Your task to perform on an android device: Is it going to rain tomorrow? Image 0: 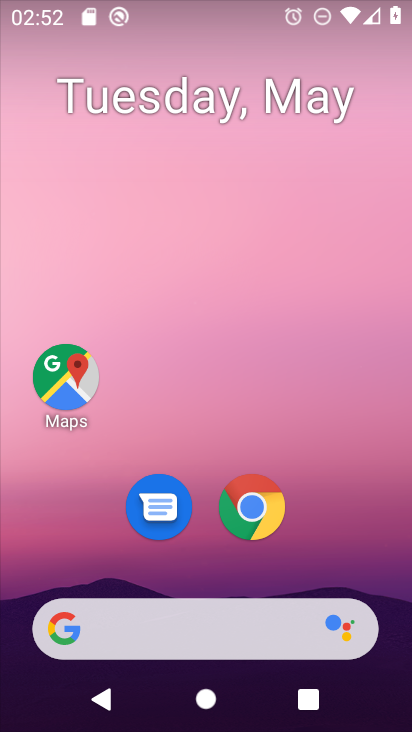
Step 0: drag from (216, 563) to (212, 193)
Your task to perform on an android device: Is it going to rain tomorrow? Image 1: 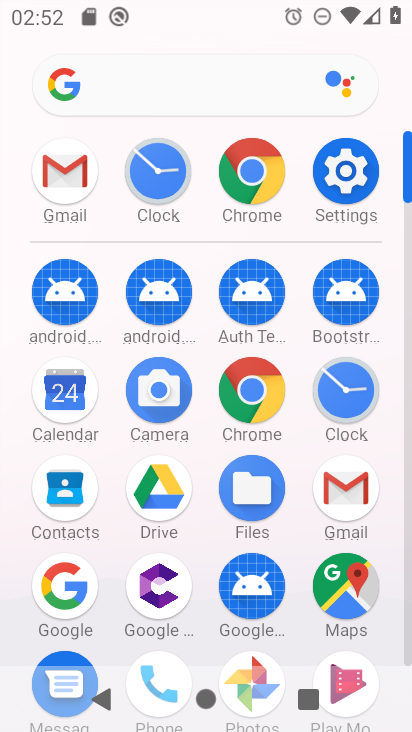
Step 1: click (46, 586)
Your task to perform on an android device: Is it going to rain tomorrow? Image 2: 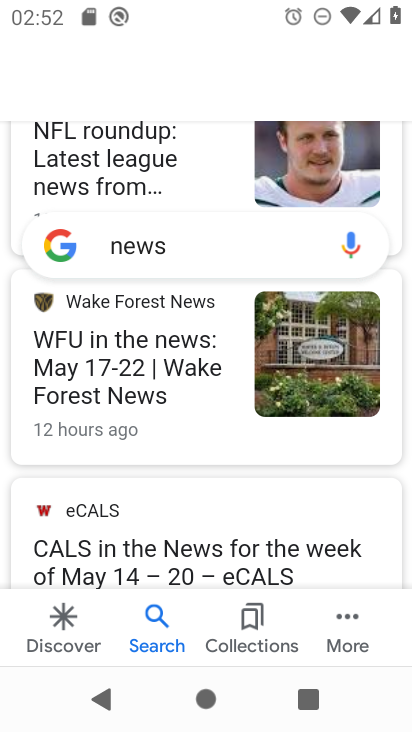
Step 2: drag from (214, 185) to (194, 514)
Your task to perform on an android device: Is it going to rain tomorrow? Image 3: 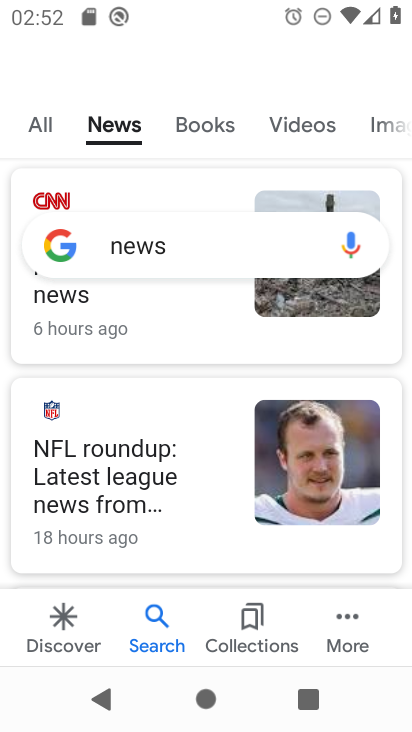
Step 3: drag from (211, 348) to (227, 526)
Your task to perform on an android device: Is it going to rain tomorrow? Image 4: 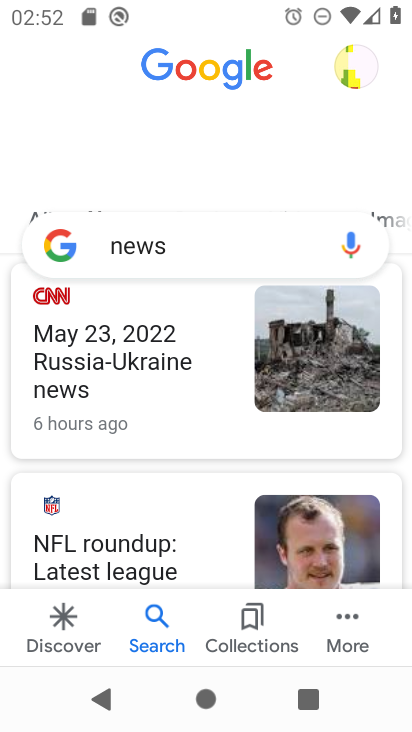
Step 4: click (259, 235)
Your task to perform on an android device: Is it going to rain tomorrow? Image 5: 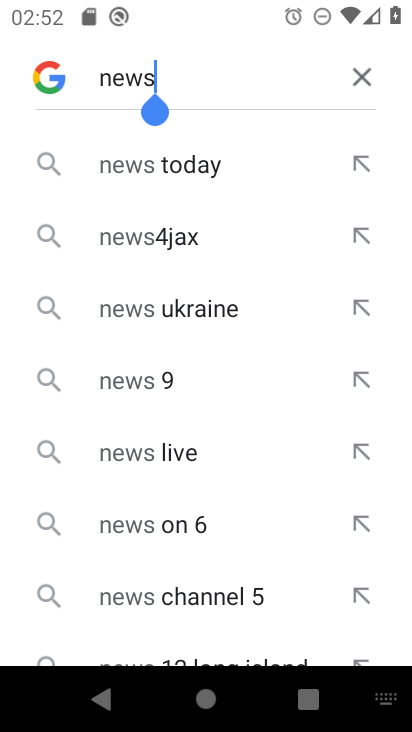
Step 5: click (363, 83)
Your task to perform on an android device: Is it going to rain tomorrow? Image 6: 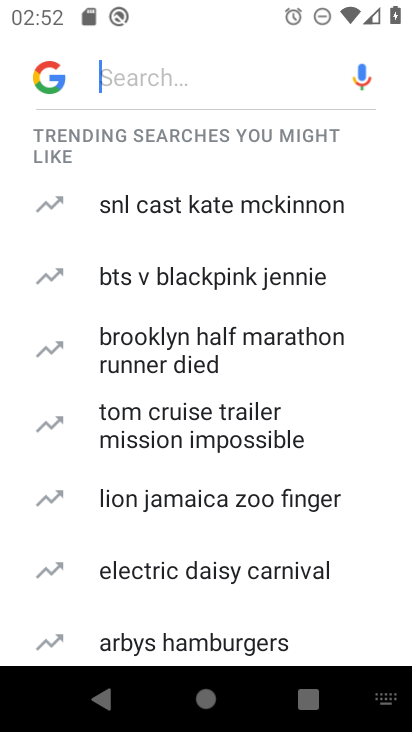
Step 6: click (212, 83)
Your task to perform on an android device: Is it going to rain tomorrow? Image 7: 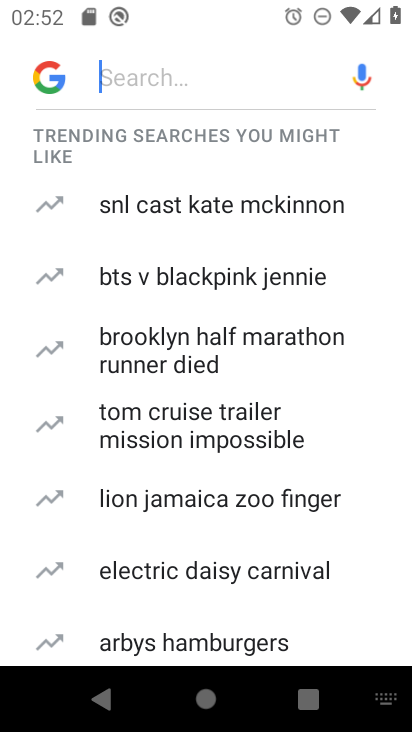
Step 7: type "weather"
Your task to perform on an android device: Is it going to rain tomorrow? Image 8: 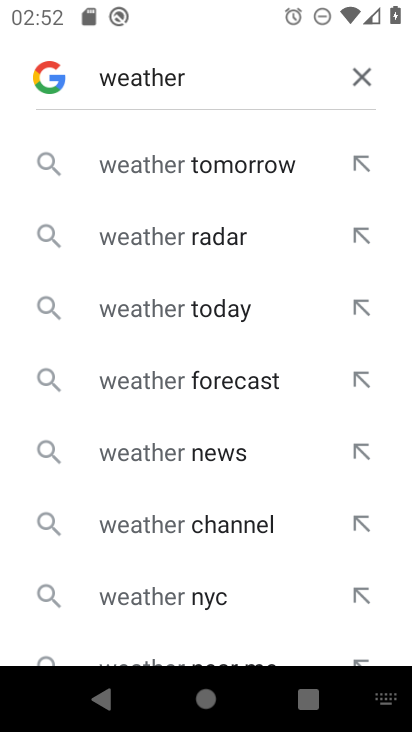
Step 8: click (236, 307)
Your task to perform on an android device: Is it going to rain tomorrow? Image 9: 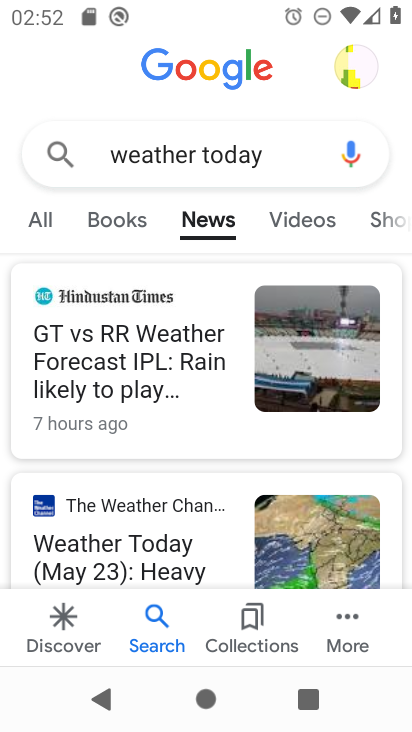
Step 9: click (55, 215)
Your task to perform on an android device: Is it going to rain tomorrow? Image 10: 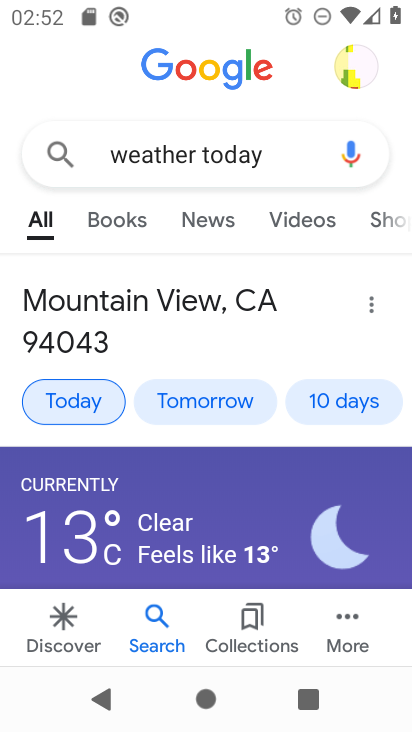
Step 10: drag from (224, 490) to (244, 273)
Your task to perform on an android device: Is it going to rain tomorrow? Image 11: 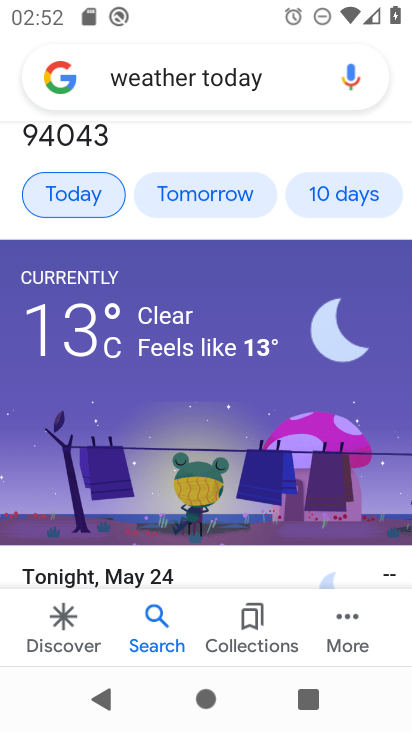
Step 11: click (218, 194)
Your task to perform on an android device: Is it going to rain tomorrow? Image 12: 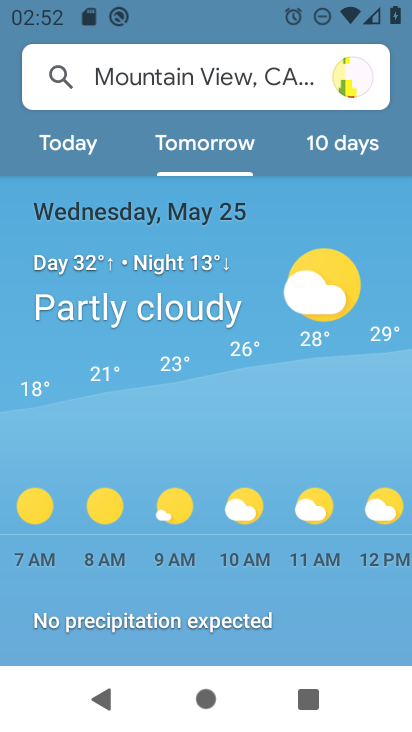
Step 12: task complete